Your task to perform on an android device: Go to Wikipedia Image 0: 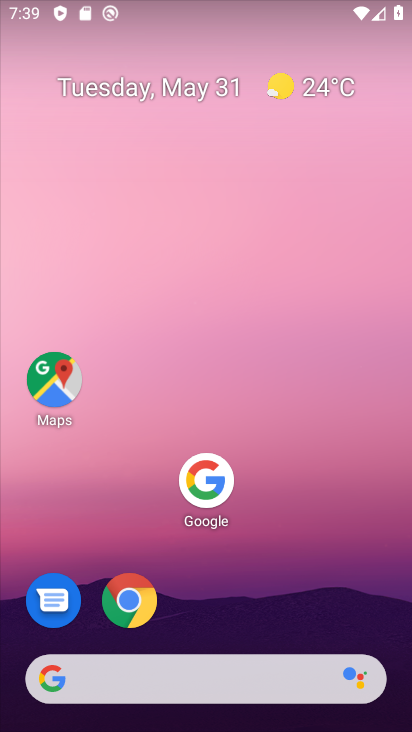
Step 0: click (136, 595)
Your task to perform on an android device: Go to Wikipedia Image 1: 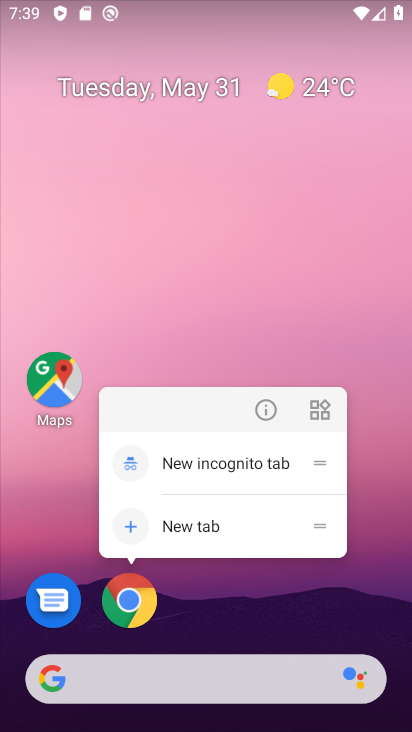
Step 1: click (124, 607)
Your task to perform on an android device: Go to Wikipedia Image 2: 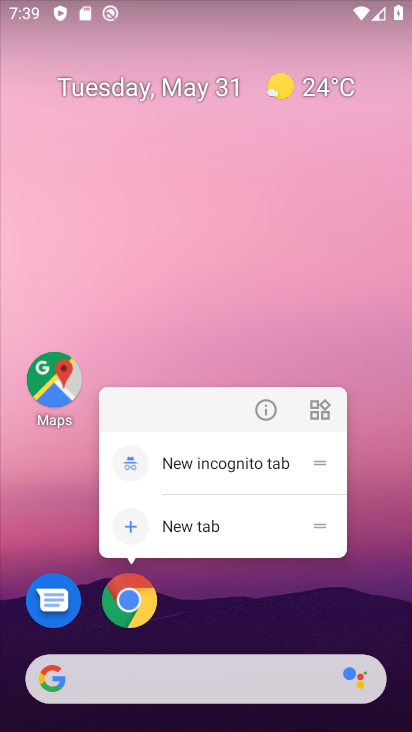
Step 2: click (128, 598)
Your task to perform on an android device: Go to Wikipedia Image 3: 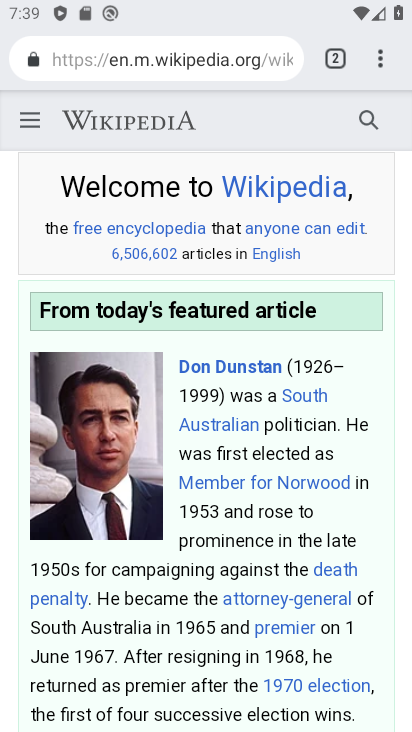
Step 3: task complete